Your task to perform on an android device: open the mobile data screen to see how much data has been used Image 0: 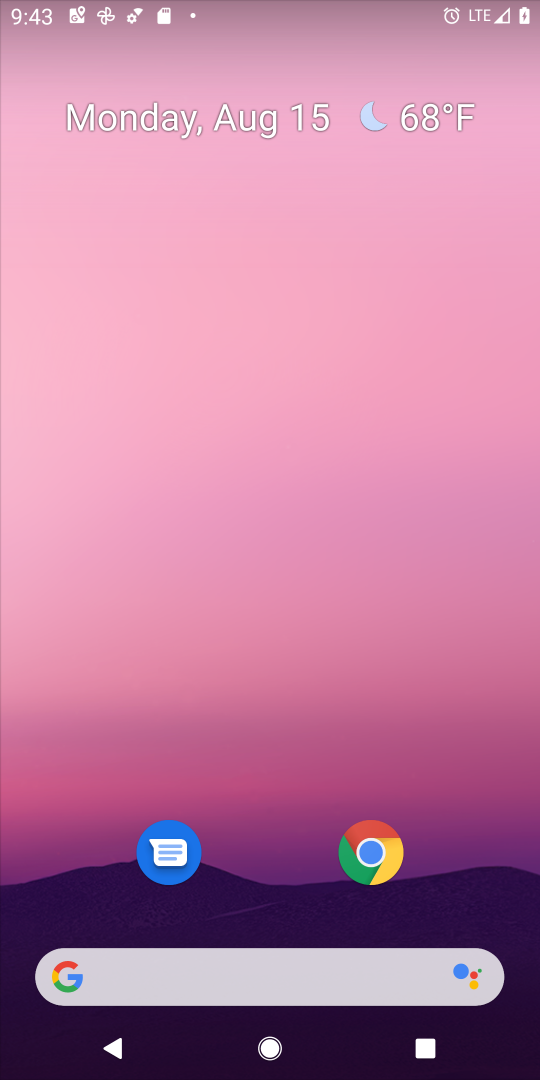
Step 0: drag from (189, 975) to (274, 196)
Your task to perform on an android device: open the mobile data screen to see how much data has been used Image 1: 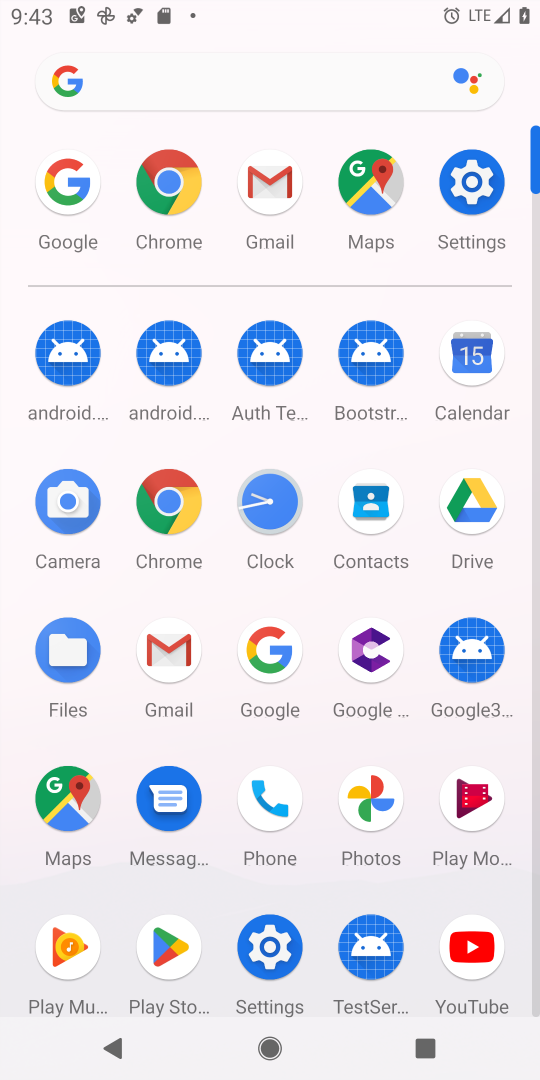
Step 1: click (473, 182)
Your task to perform on an android device: open the mobile data screen to see how much data has been used Image 2: 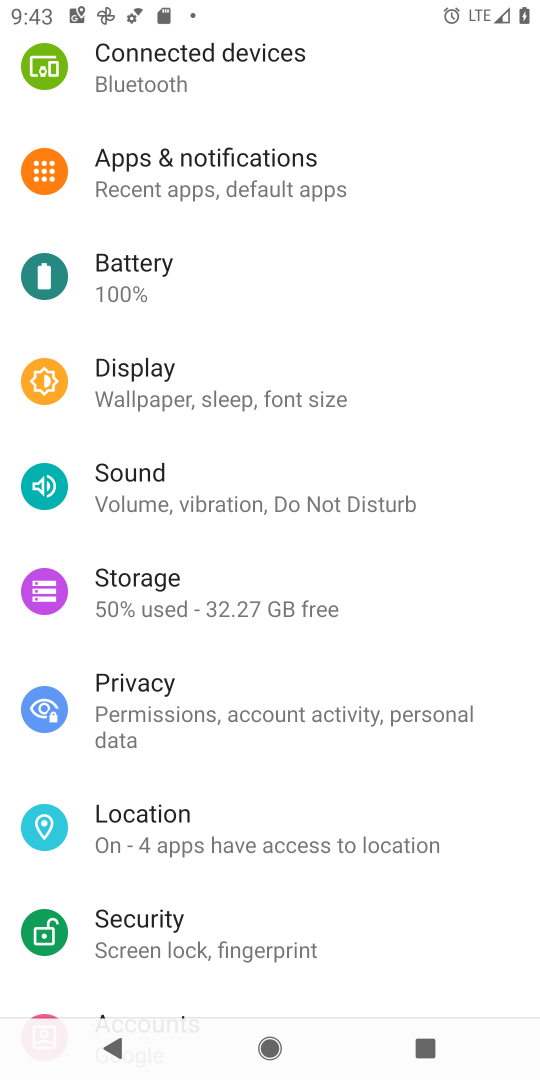
Step 2: drag from (248, 259) to (183, 475)
Your task to perform on an android device: open the mobile data screen to see how much data has been used Image 3: 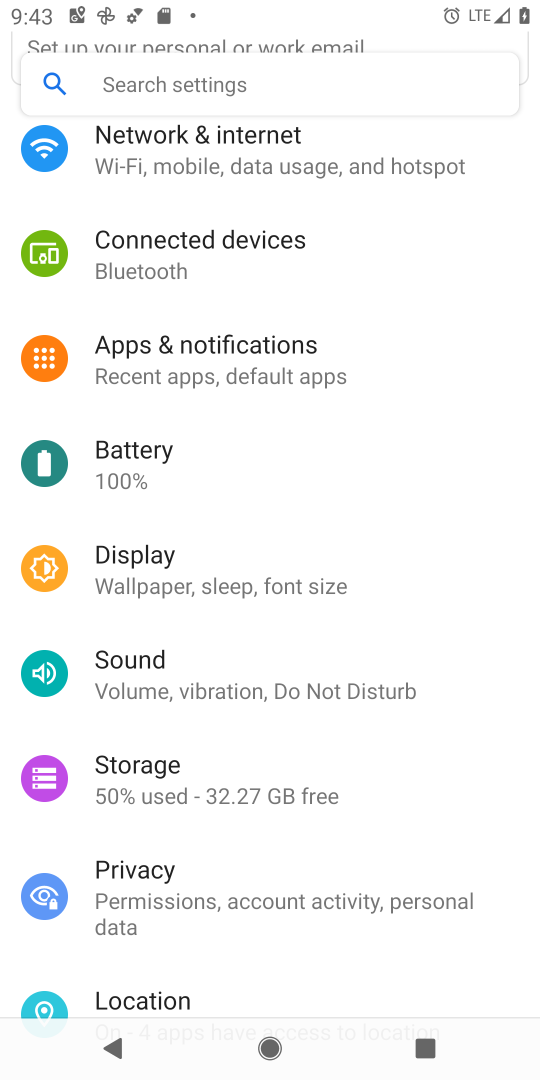
Step 3: drag from (240, 285) to (193, 545)
Your task to perform on an android device: open the mobile data screen to see how much data has been used Image 4: 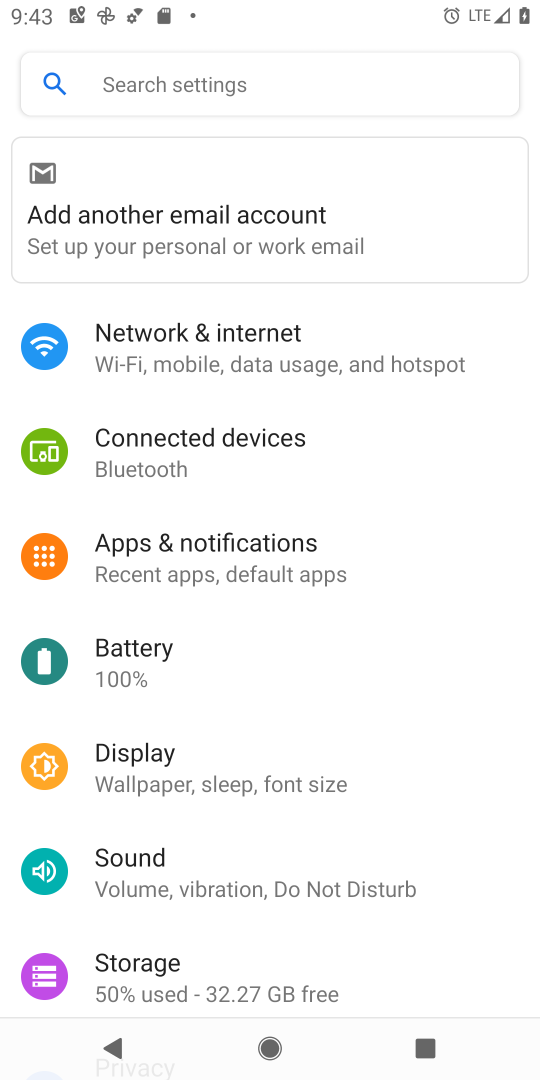
Step 4: click (196, 342)
Your task to perform on an android device: open the mobile data screen to see how much data has been used Image 5: 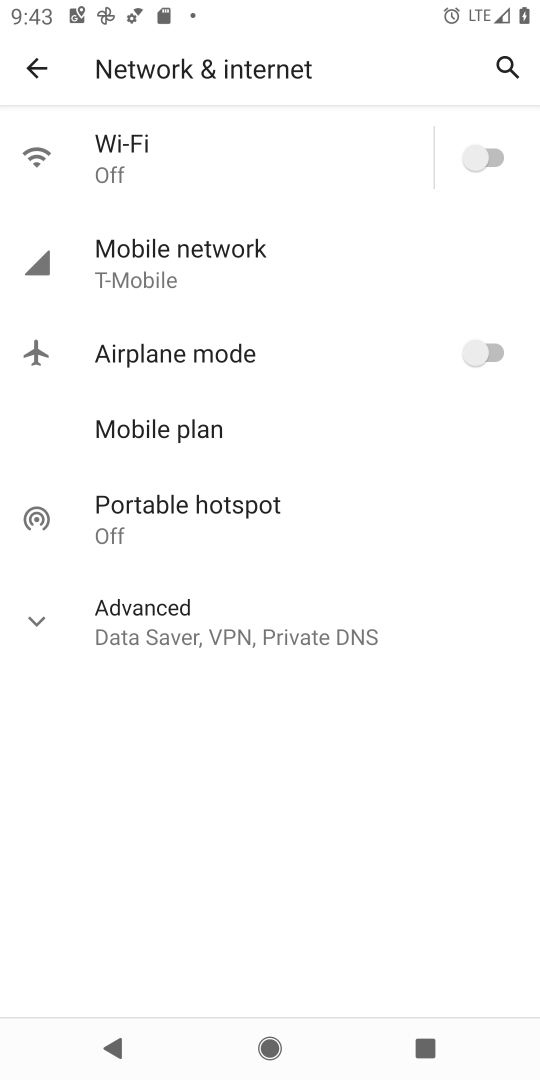
Step 5: click (156, 279)
Your task to perform on an android device: open the mobile data screen to see how much data has been used Image 6: 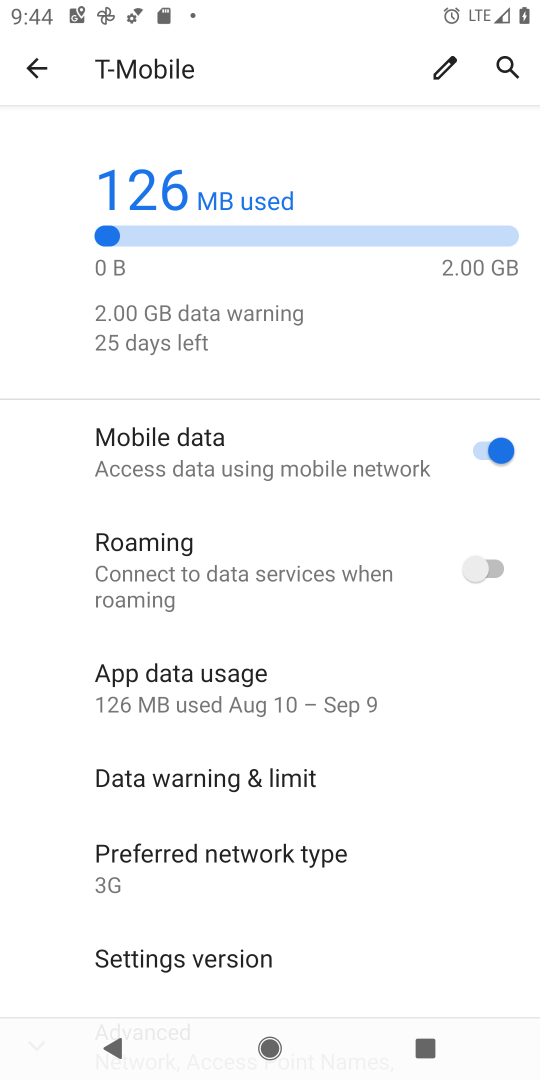
Step 6: task complete